Your task to perform on an android device: open app "Microsoft Outlook" Image 0: 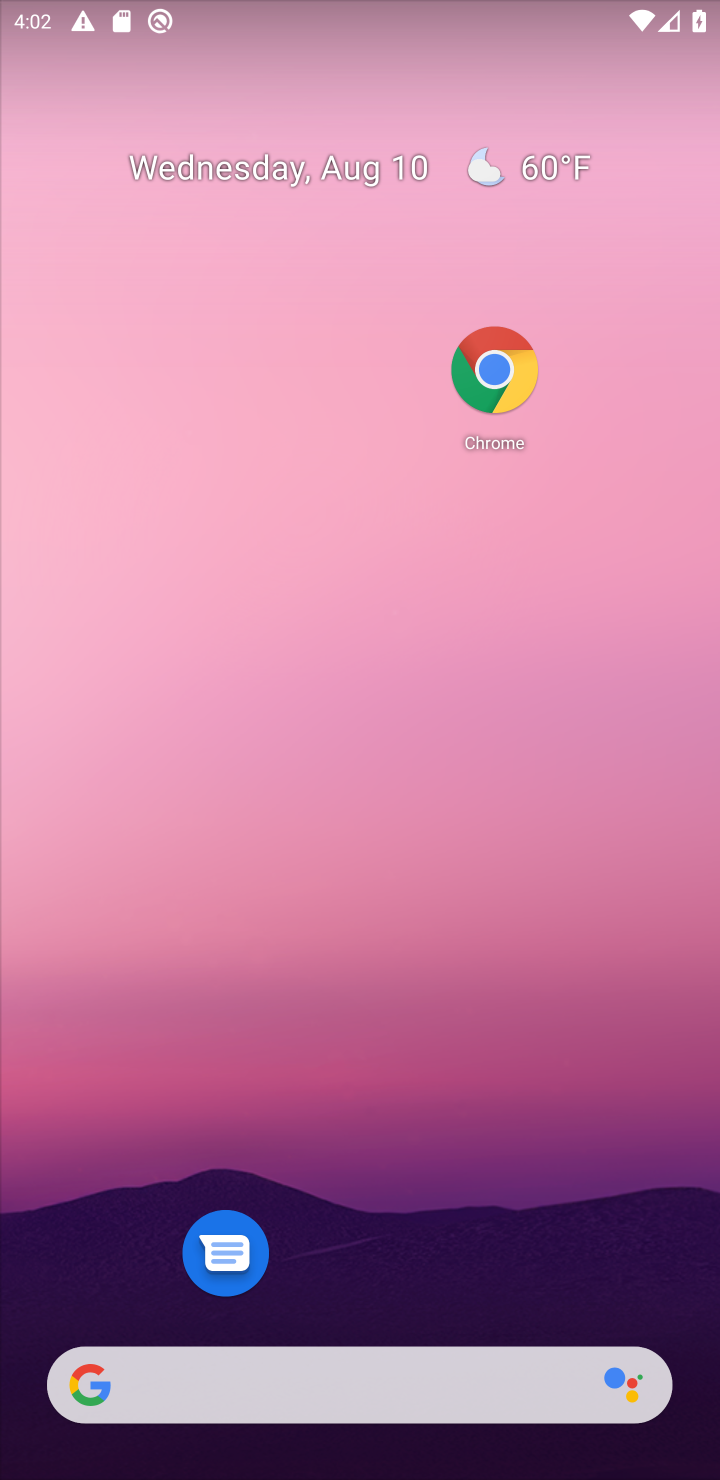
Step 0: click (29, 88)
Your task to perform on an android device: open app "Microsoft Outlook" Image 1: 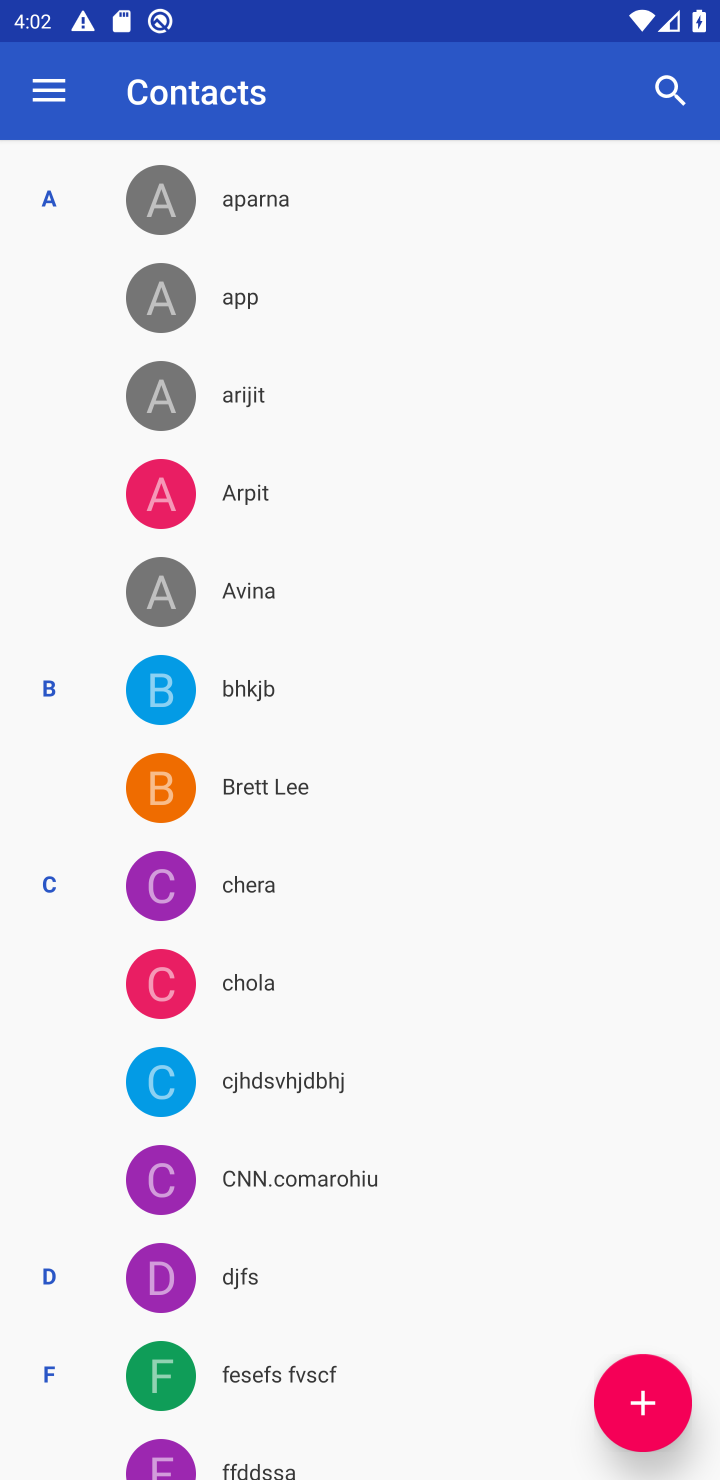
Step 1: press home button
Your task to perform on an android device: open app "Microsoft Outlook" Image 2: 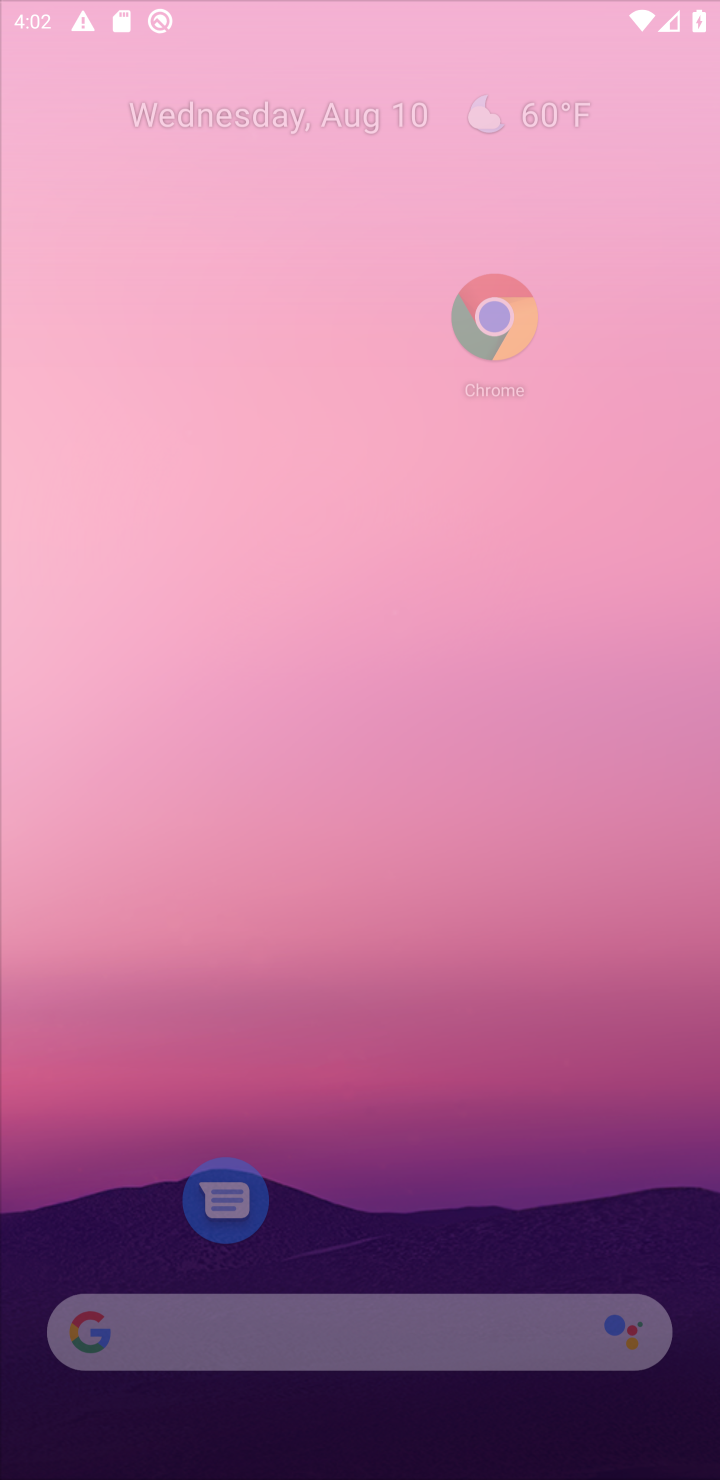
Step 2: drag from (367, 522) to (347, 211)
Your task to perform on an android device: open app "Microsoft Outlook" Image 3: 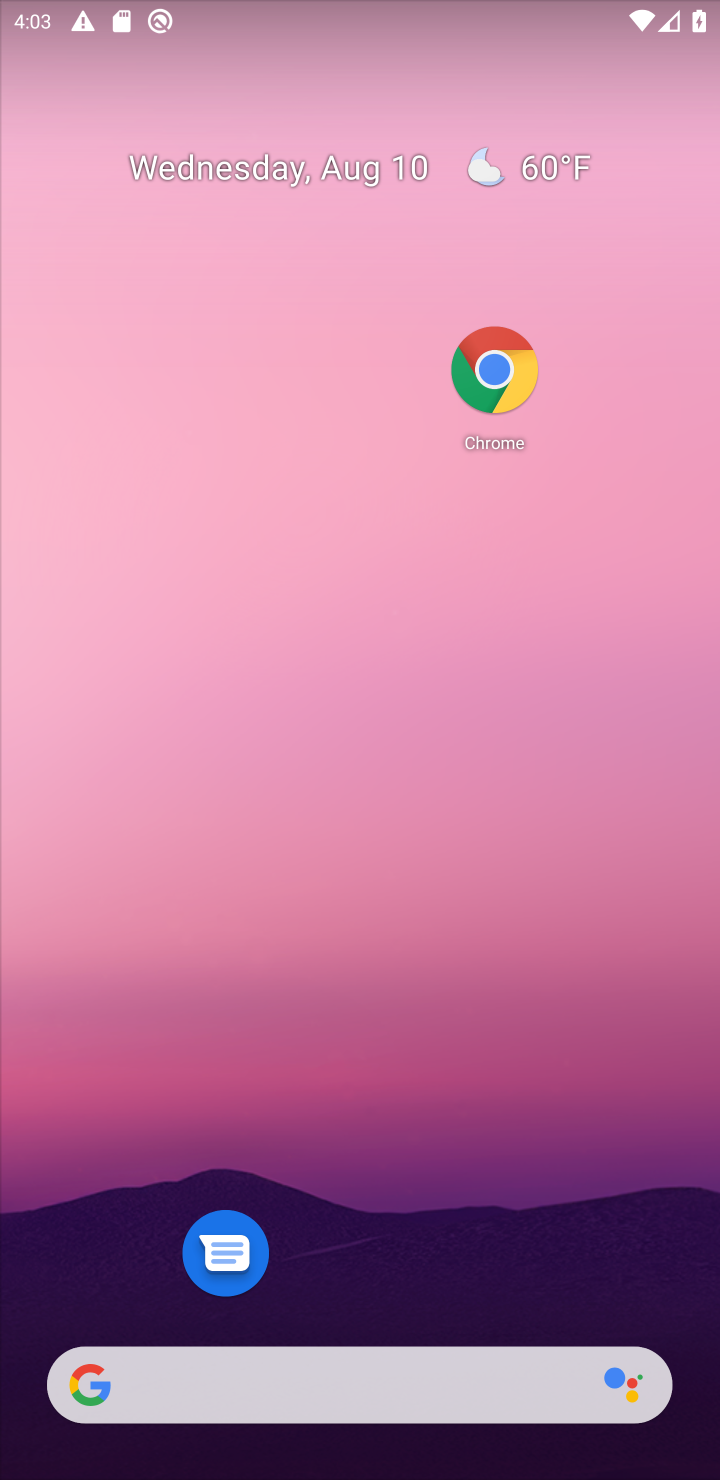
Step 3: drag from (279, 1108) to (271, 88)
Your task to perform on an android device: open app "Microsoft Outlook" Image 4: 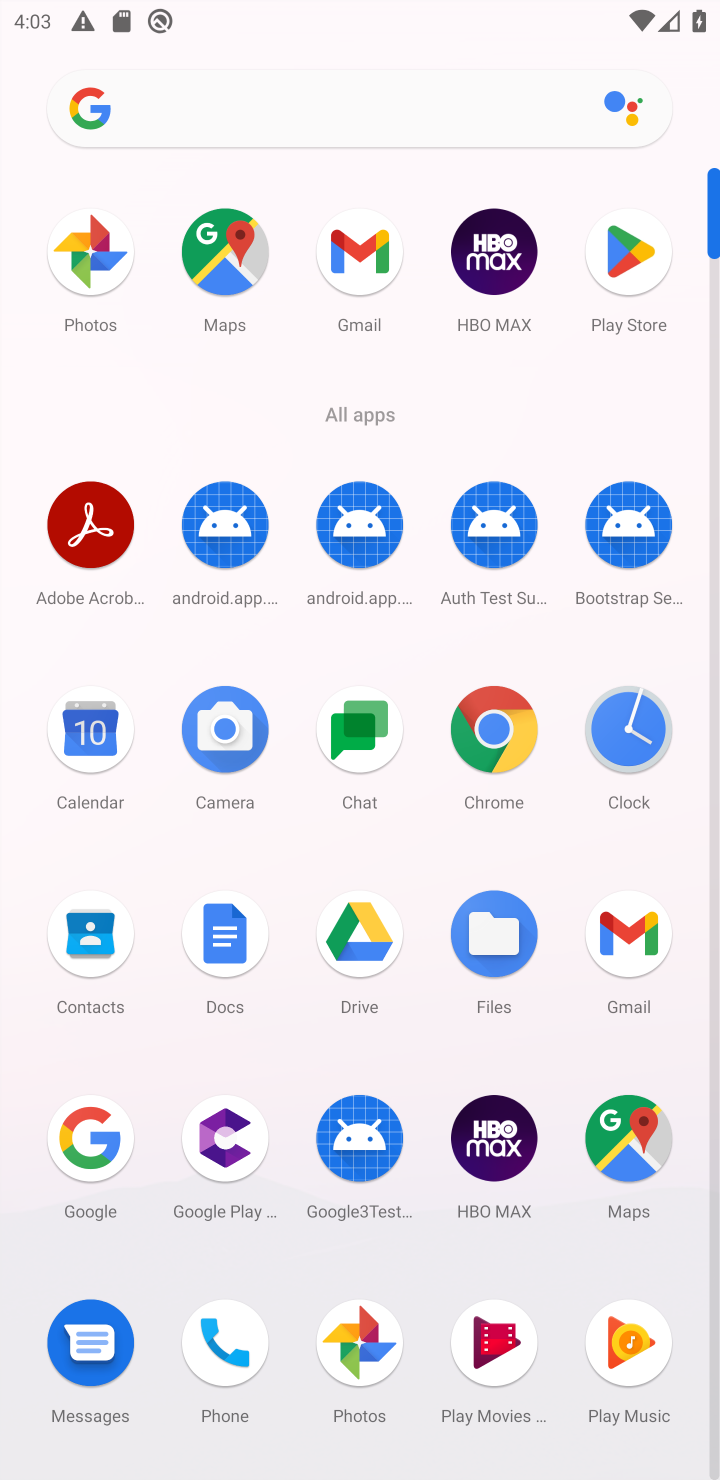
Step 4: click (628, 230)
Your task to perform on an android device: open app "Microsoft Outlook" Image 5: 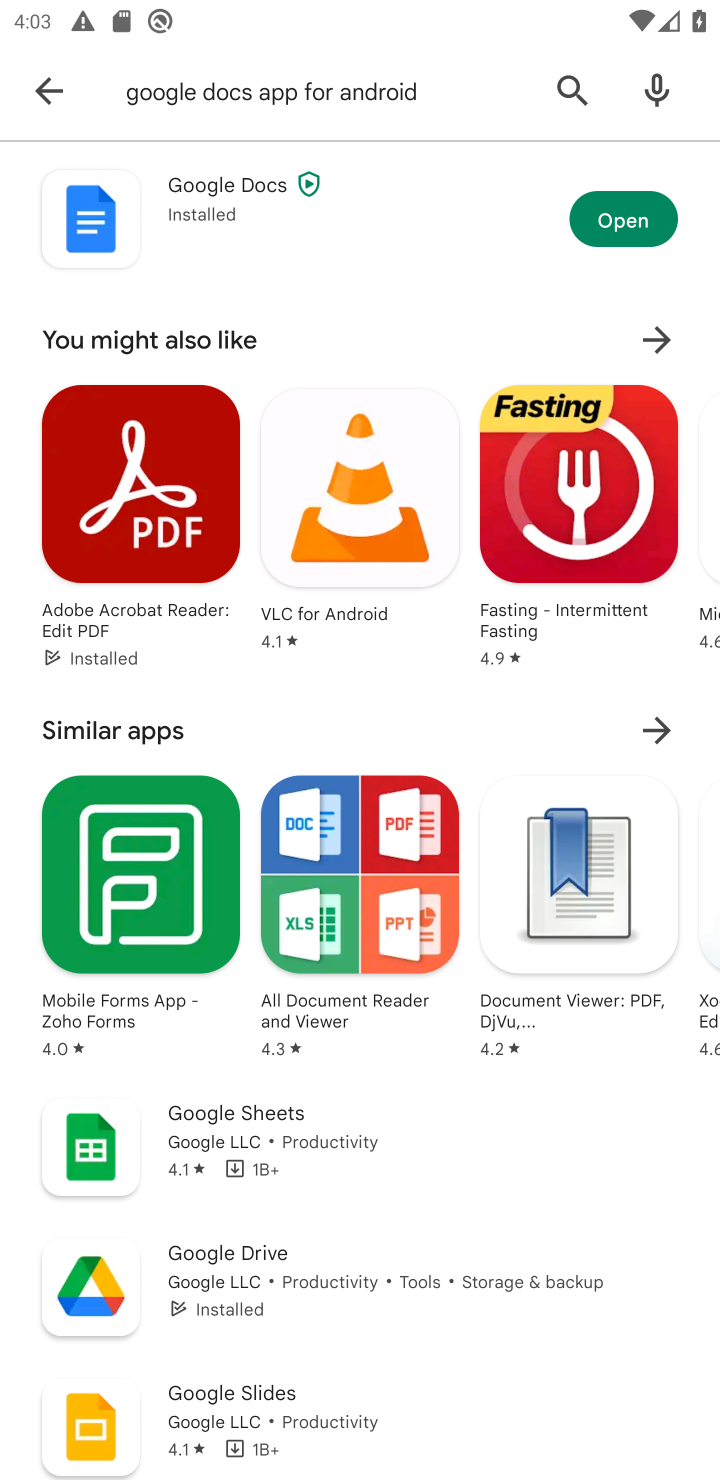
Step 5: click (41, 72)
Your task to perform on an android device: open app "Microsoft Outlook" Image 6: 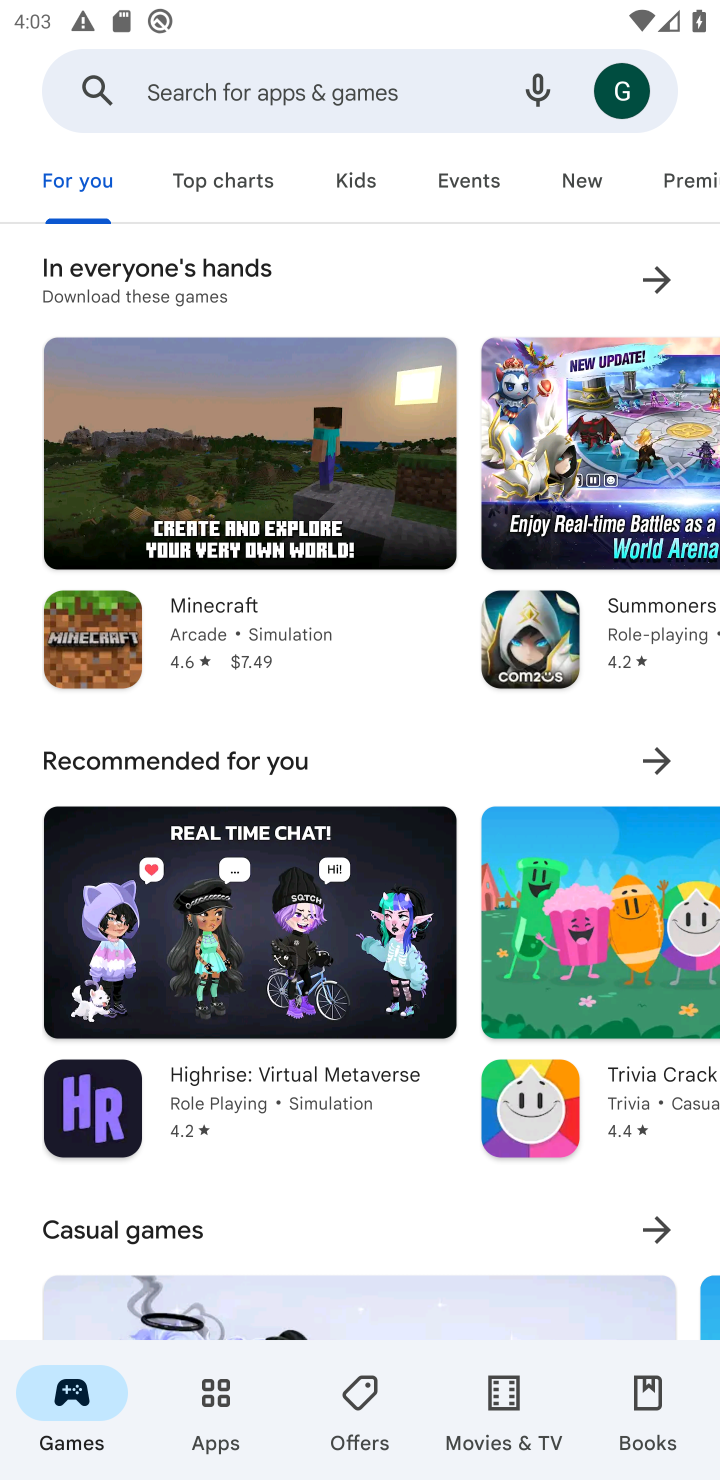
Step 6: click (300, 69)
Your task to perform on an android device: open app "Microsoft Outlook" Image 7: 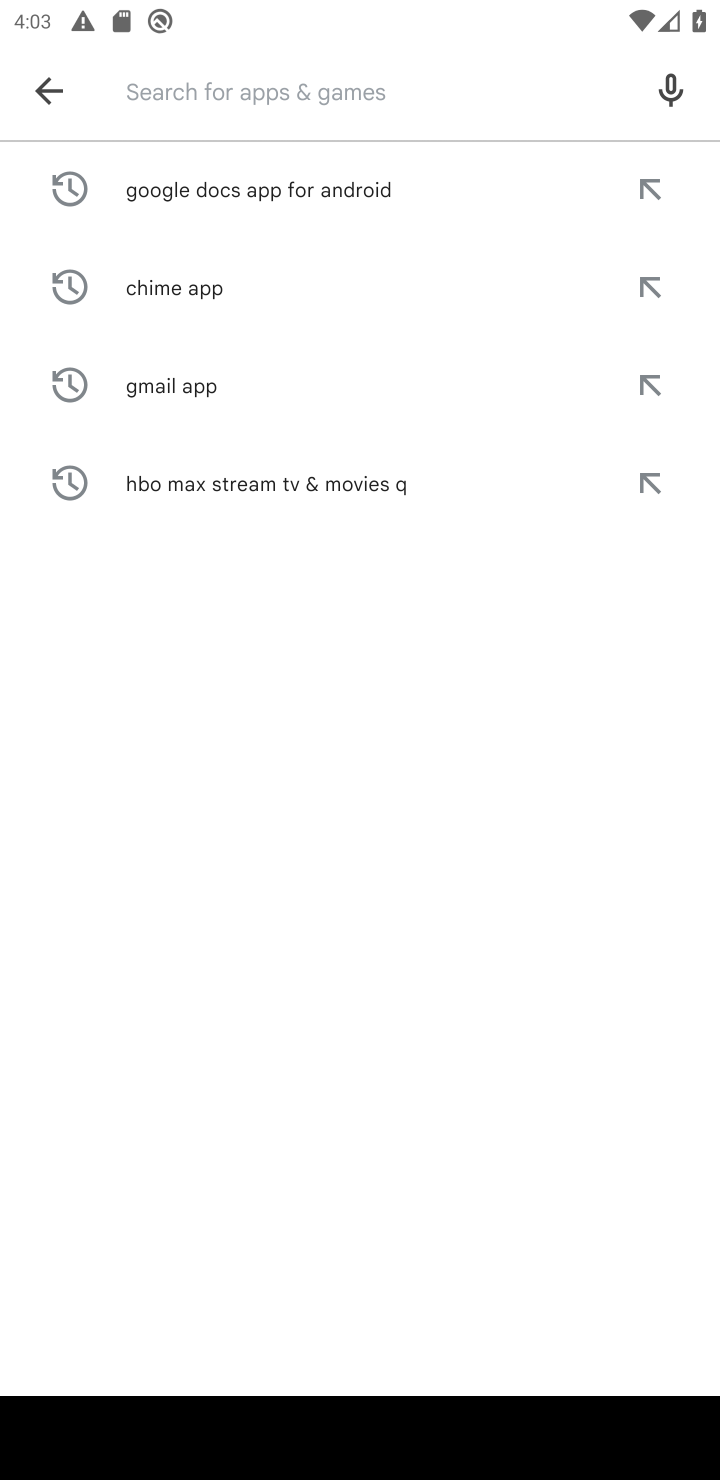
Step 7: type "microsoft outlook "
Your task to perform on an android device: open app "Microsoft Outlook" Image 8: 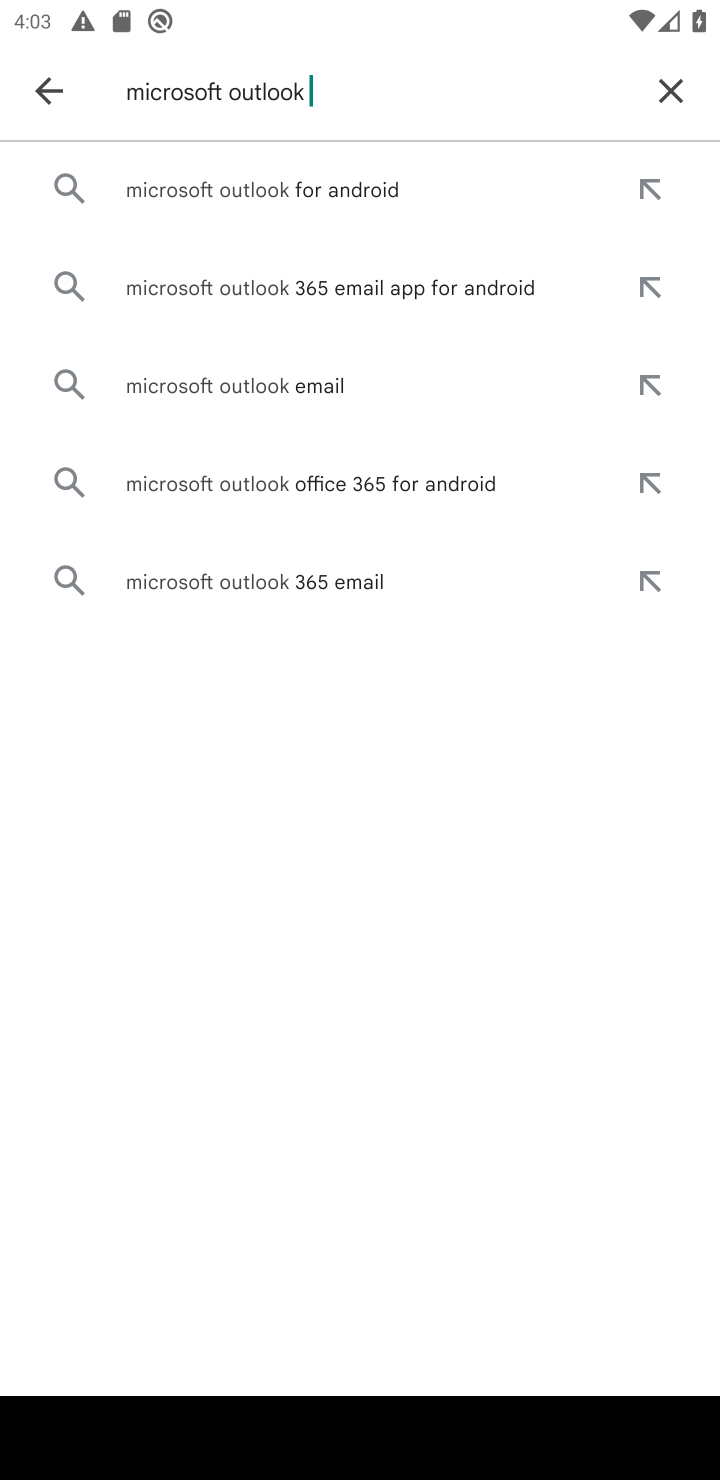
Step 8: click (254, 180)
Your task to perform on an android device: open app "Microsoft Outlook" Image 9: 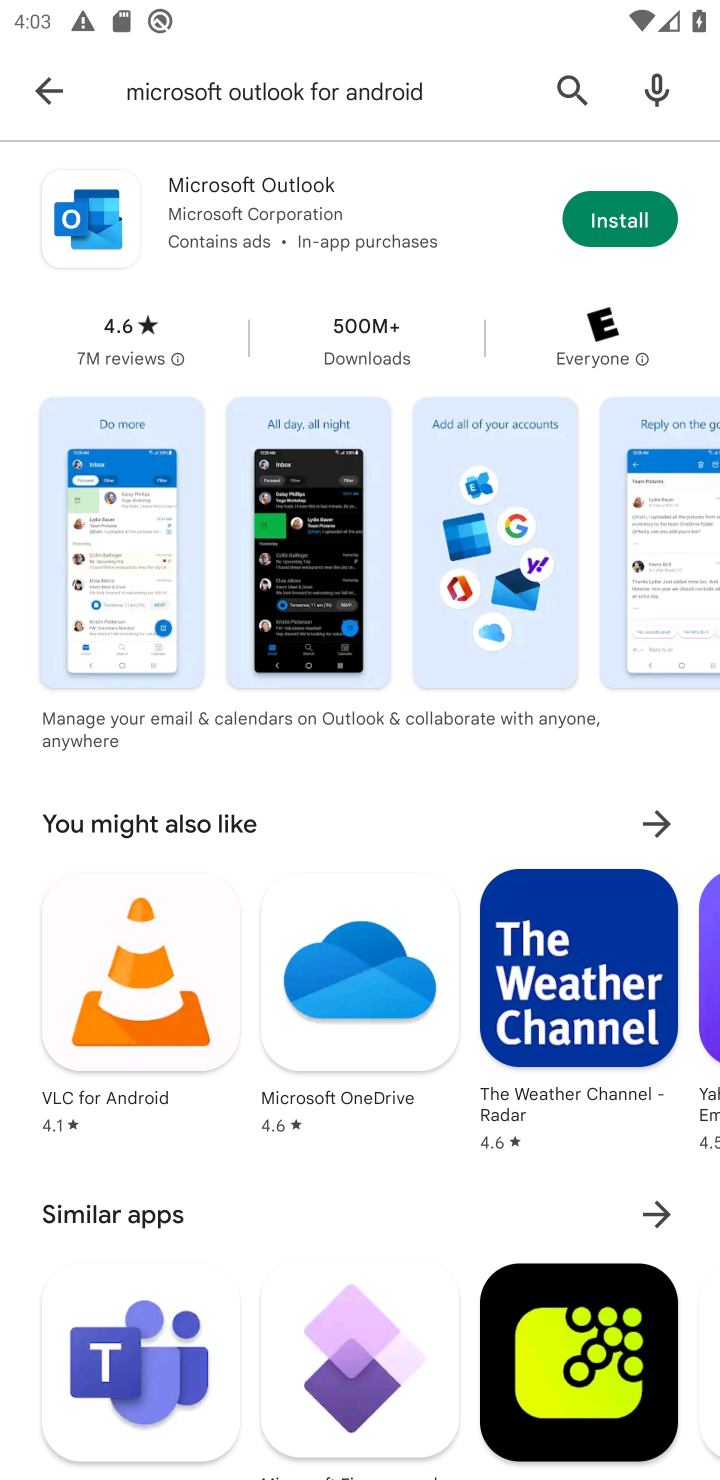
Step 9: click (648, 238)
Your task to perform on an android device: open app "Microsoft Outlook" Image 10: 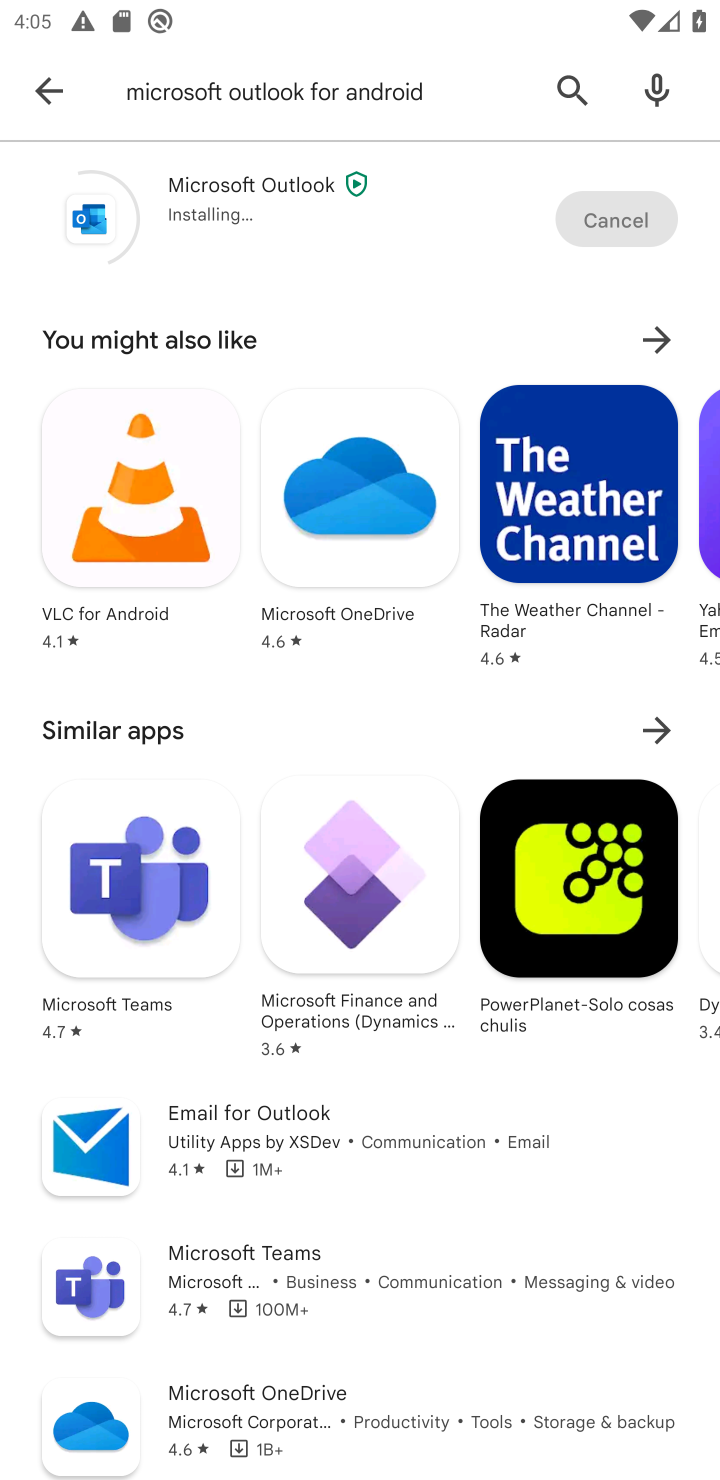
Step 10: task complete